Your task to perform on an android device: Show me popular games on the Play Store Image 0: 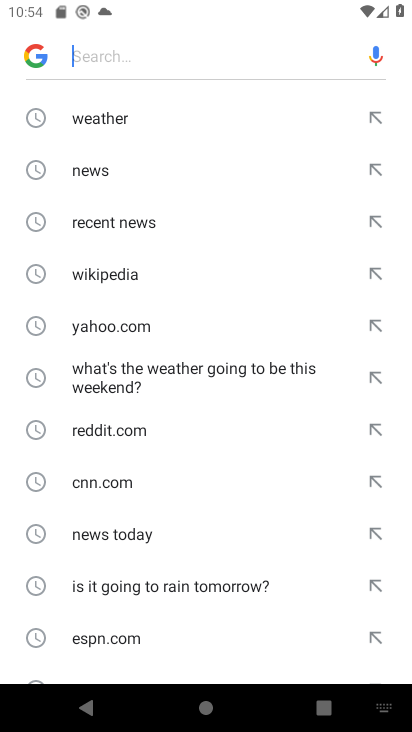
Step 0: press home button
Your task to perform on an android device: Show me popular games on the Play Store Image 1: 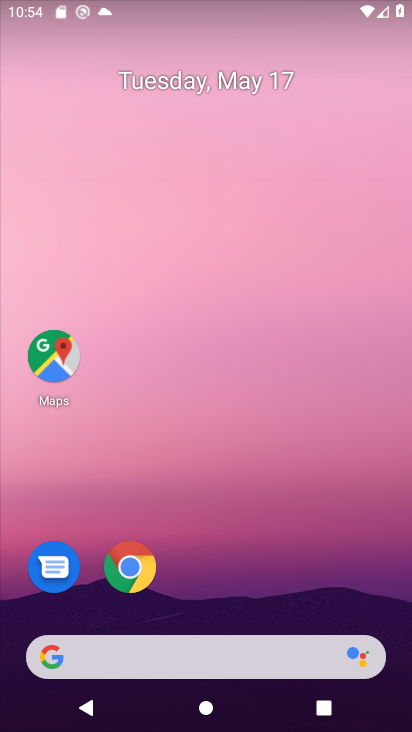
Step 1: drag from (291, 591) to (291, 11)
Your task to perform on an android device: Show me popular games on the Play Store Image 2: 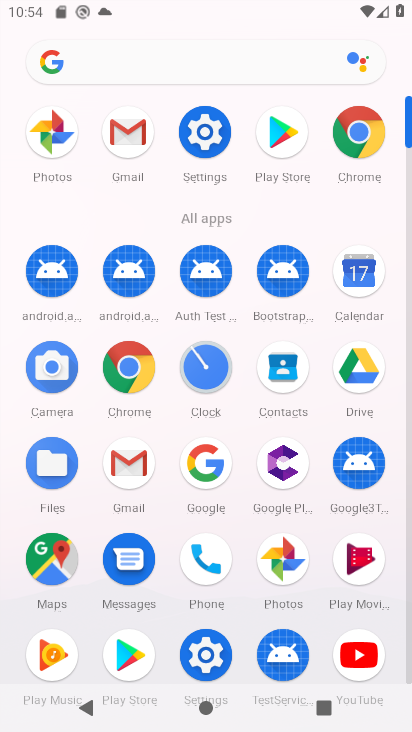
Step 2: click (127, 662)
Your task to perform on an android device: Show me popular games on the Play Store Image 3: 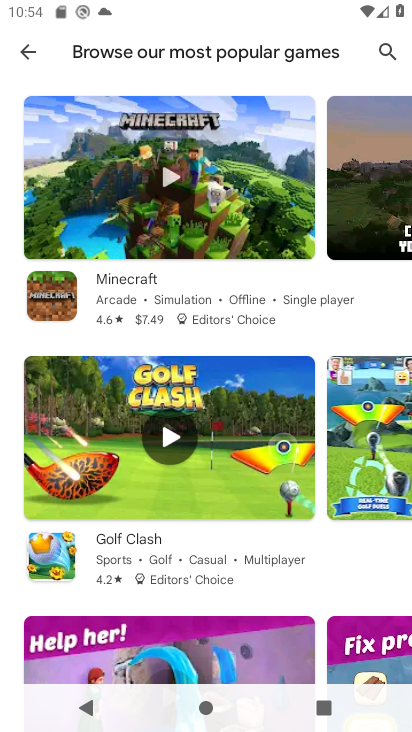
Step 3: click (28, 32)
Your task to perform on an android device: Show me popular games on the Play Store Image 4: 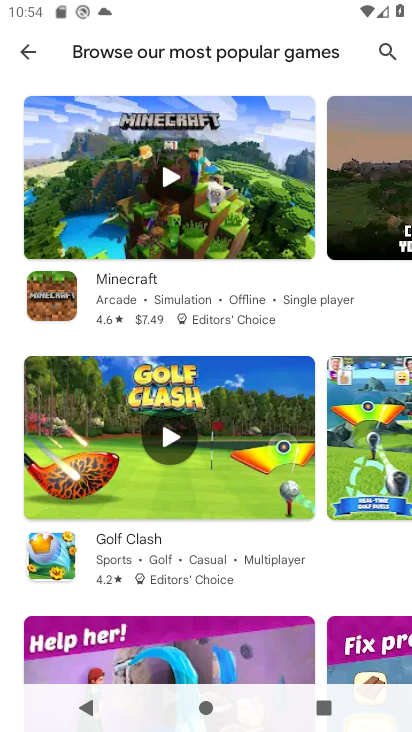
Step 4: task complete